Your task to perform on an android device: open sync settings in chrome Image 0: 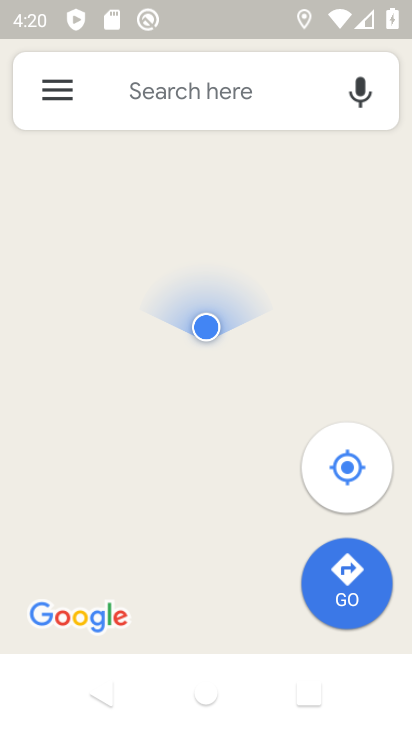
Step 0: press home button
Your task to perform on an android device: open sync settings in chrome Image 1: 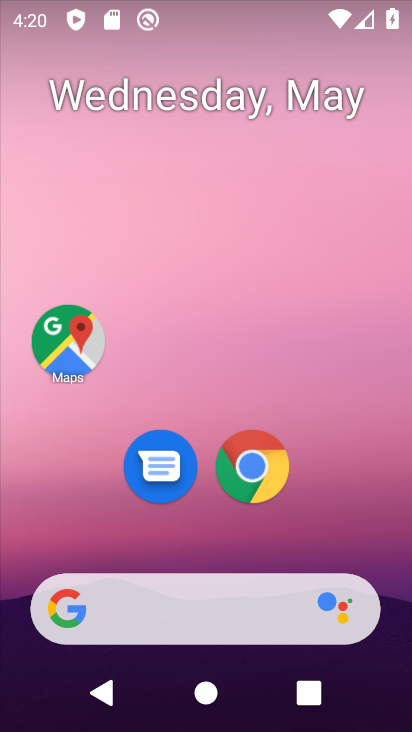
Step 1: click (260, 479)
Your task to perform on an android device: open sync settings in chrome Image 2: 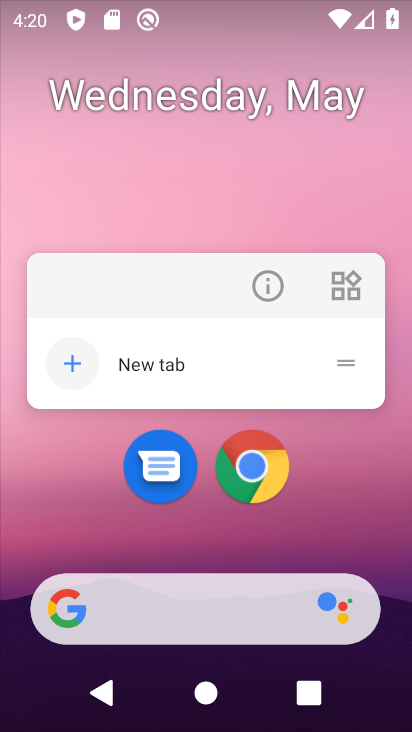
Step 2: click (260, 479)
Your task to perform on an android device: open sync settings in chrome Image 3: 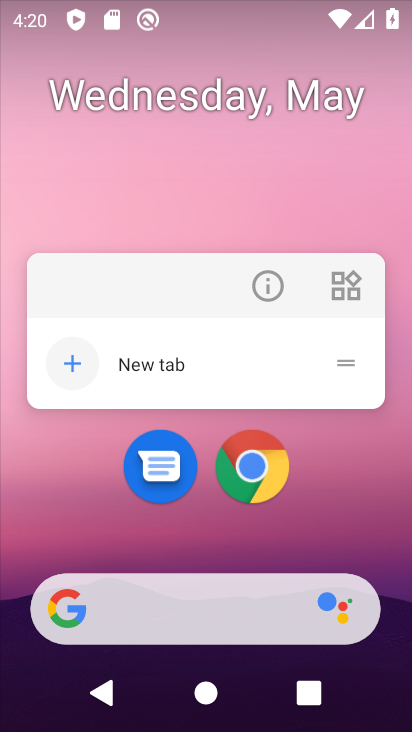
Step 3: click (260, 479)
Your task to perform on an android device: open sync settings in chrome Image 4: 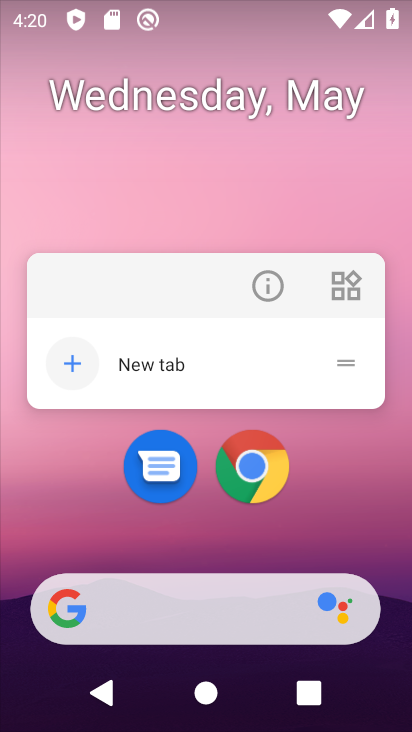
Step 4: click (254, 469)
Your task to perform on an android device: open sync settings in chrome Image 5: 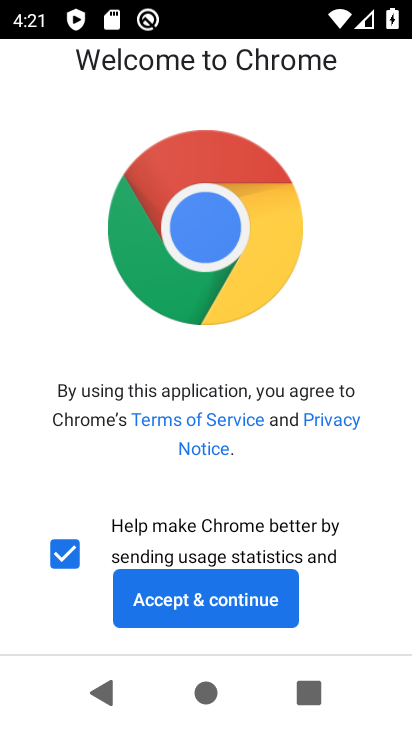
Step 5: click (240, 582)
Your task to perform on an android device: open sync settings in chrome Image 6: 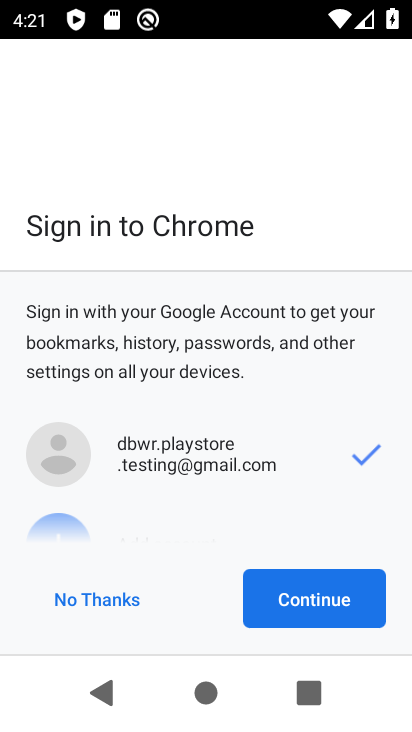
Step 6: click (294, 606)
Your task to perform on an android device: open sync settings in chrome Image 7: 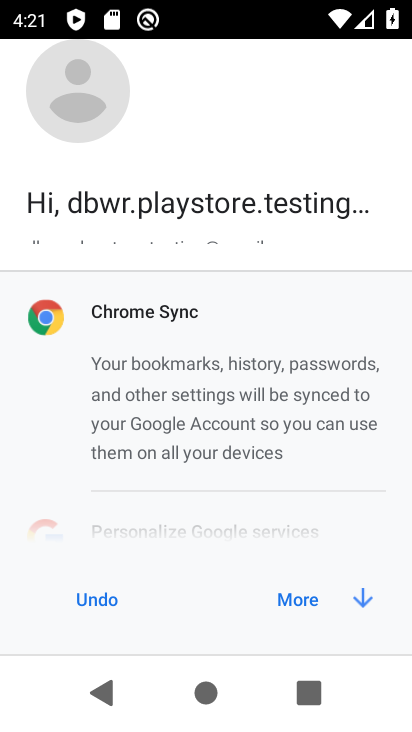
Step 7: click (313, 613)
Your task to perform on an android device: open sync settings in chrome Image 8: 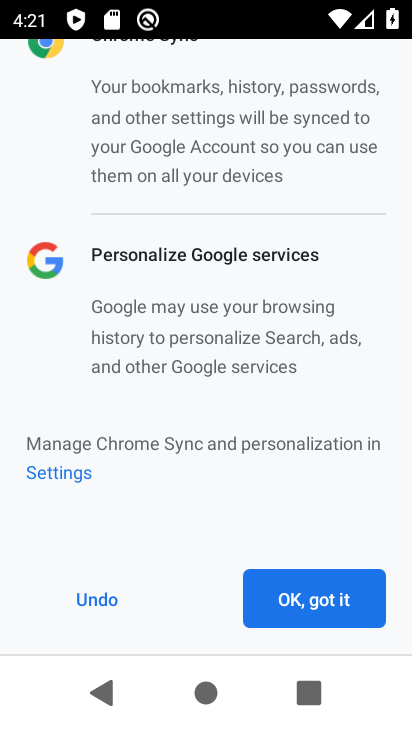
Step 8: click (313, 613)
Your task to perform on an android device: open sync settings in chrome Image 9: 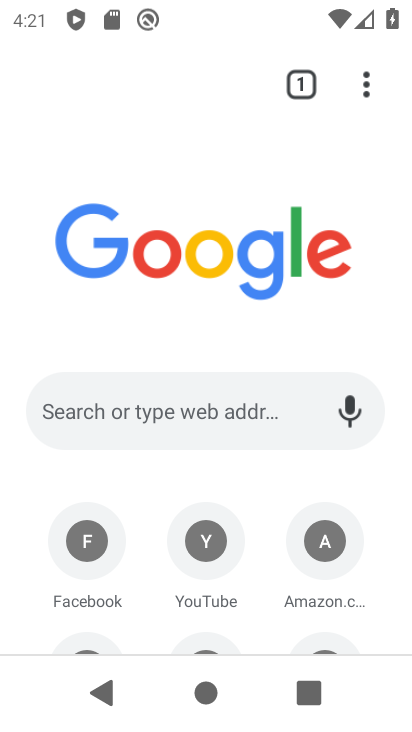
Step 9: drag from (365, 101) to (290, 544)
Your task to perform on an android device: open sync settings in chrome Image 10: 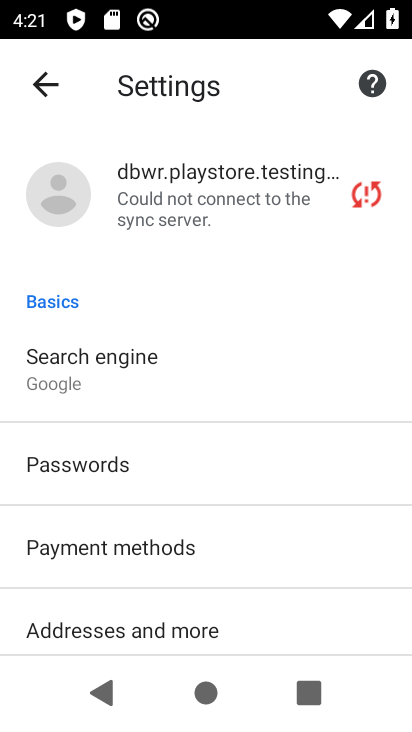
Step 10: click (234, 208)
Your task to perform on an android device: open sync settings in chrome Image 11: 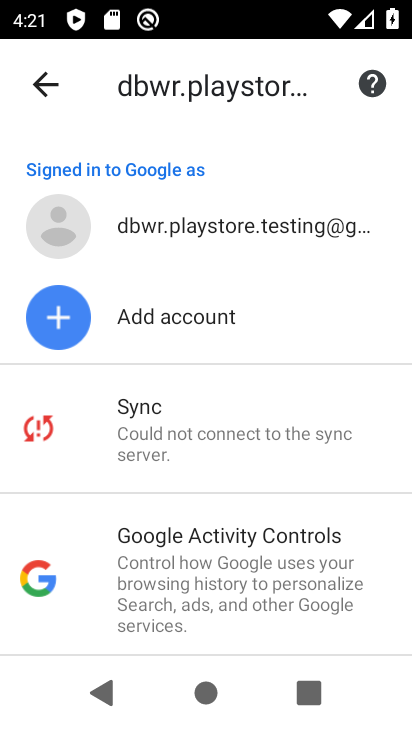
Step 11: click (241, 415)
Your task to perform on an android device: open sync settings in chrome Image 12: 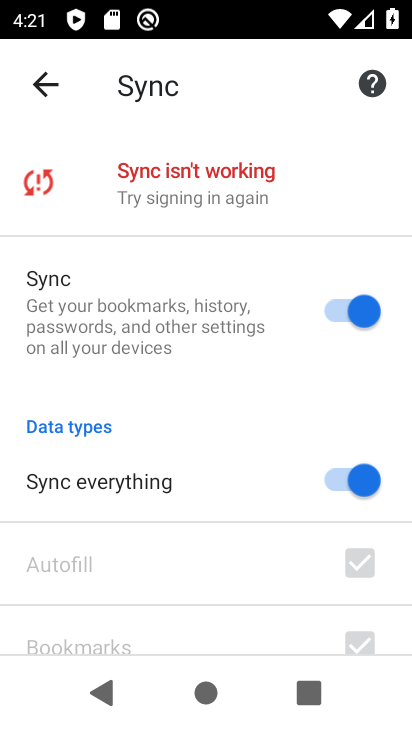
Step 12: task complete